Your task to perform on an android device: Search for Mexican restaurants on Maps Image 0: 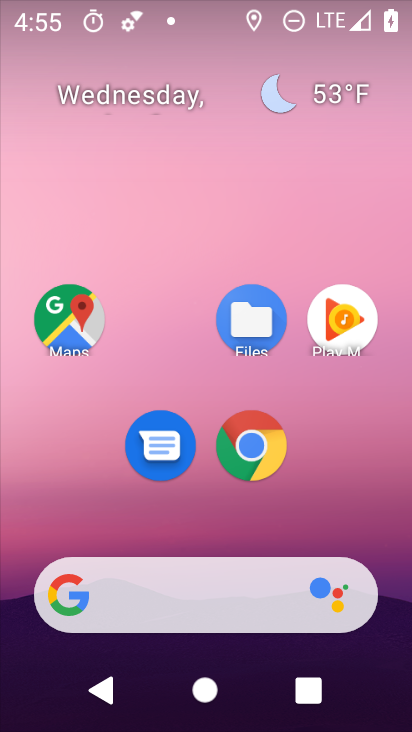
Step 0: click (90, 314)
Your task to perform on an android device: Search for Mexican restaurants on Maps Image 1: 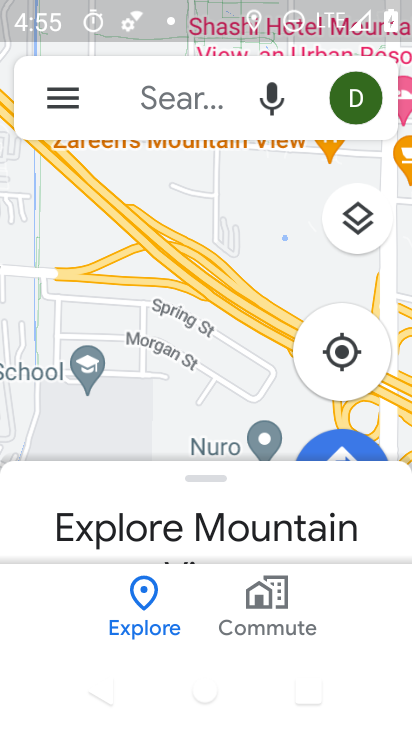
Step 1: click (173, 84)
Your task to perform on an android device: Search for Mexican restaurants on Maps Image 2: 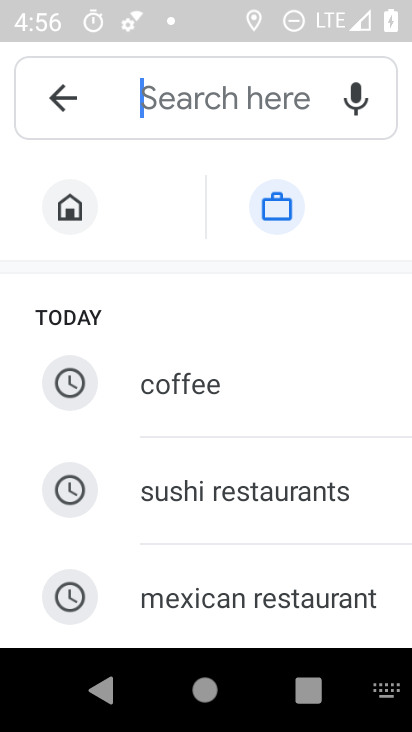
Step 2: click (260, 591)
Your task to perform on an android device: Search for Mexican restaurants on Maps Image 3: 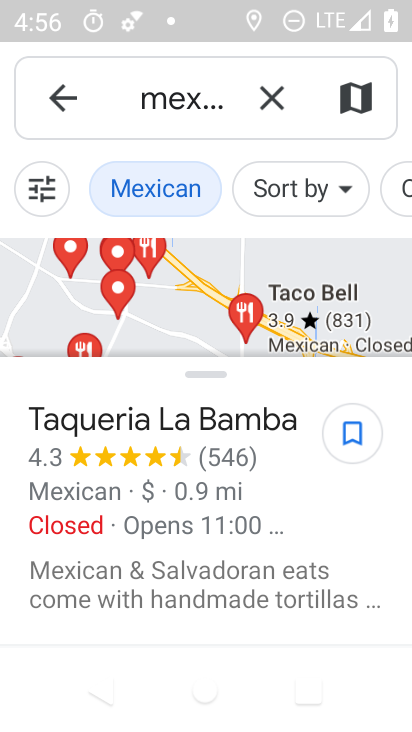
Step 3: task complete